Your task to perform on an android device: change timer sound Image 0: 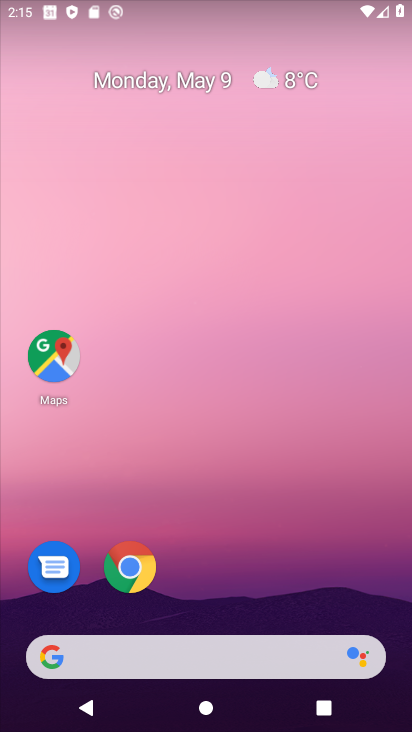
Step 0: drag from (315, 615) to (302, 179)
Your task to perform on an android device: change timer sound Image 1: 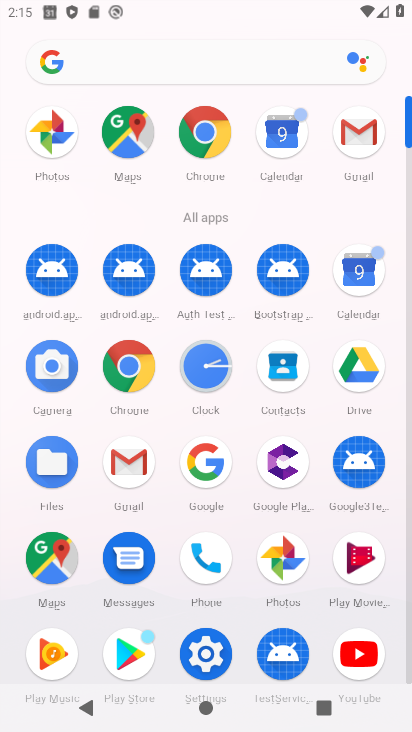
Step 1: click (201, 352)
Your task to perform on an android device: change timer sound Image 2: 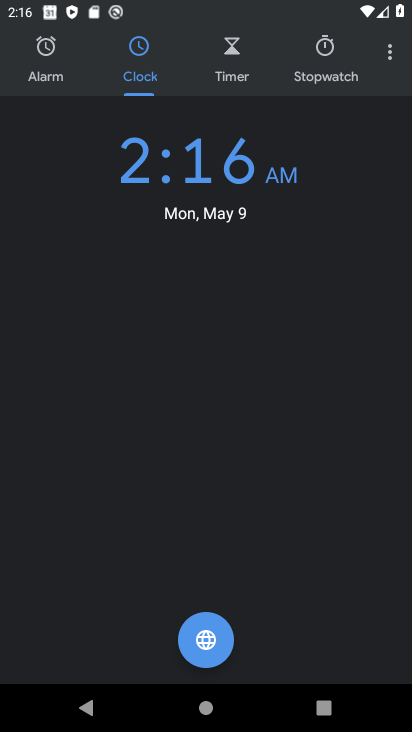
Step 2: click (377, 61)
Your task to perform on an android device: change timer sound Image 3: 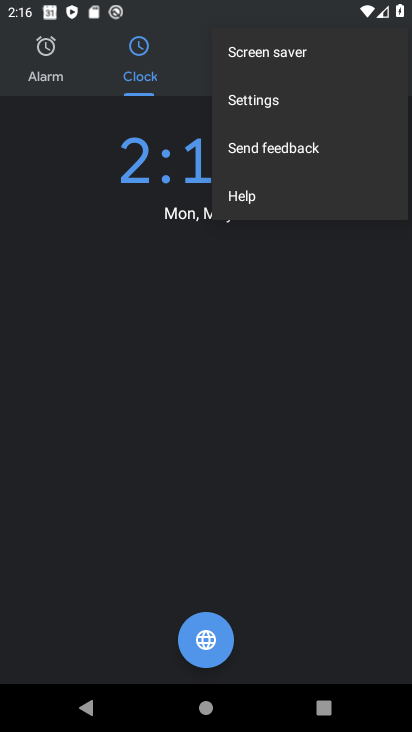
Step 3: click (301, 92)
Your task to perform on an android device: change timer sound Image 4: 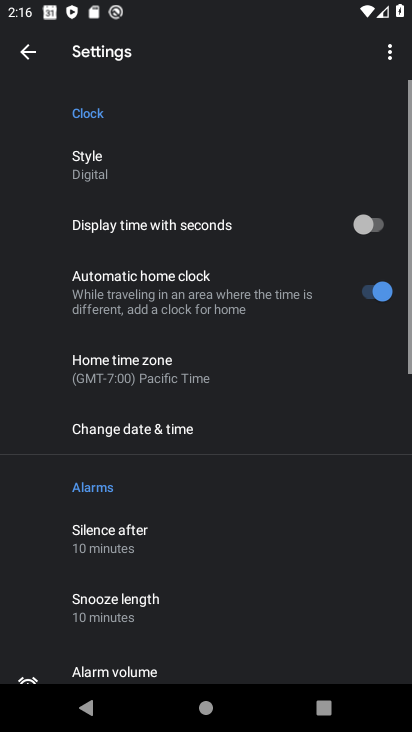
Step 4: drag from (209, 617) to (252, 105)
Your task to perform on an android device: change timer sound Image 5: 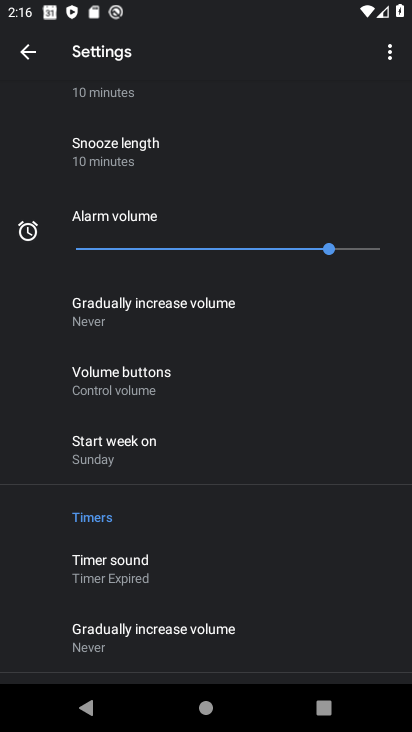
Step 5: click (174, 583)
Your task to perform on an android device: change timer sound Image 6: 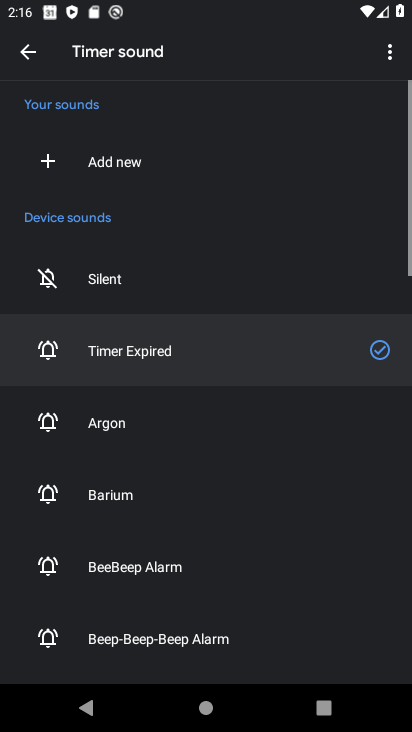
Step 6: drag from (135, 592) to (170, 198)
Your task to perform on an android device: change timer sound Image 7: 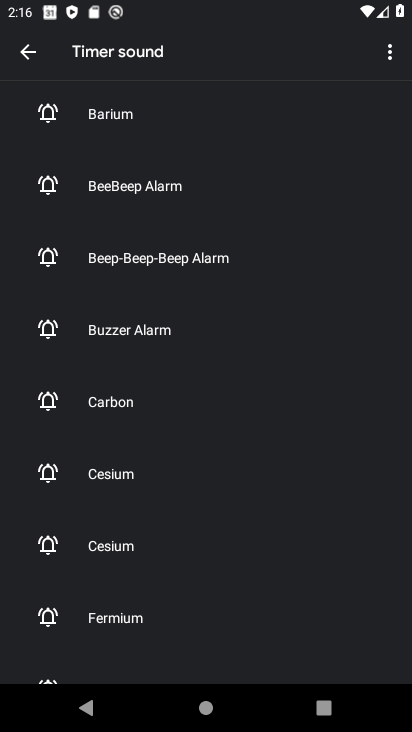
Step 7: click (113, 540)
Your task to perform on an android device: change timer sound Image 8: 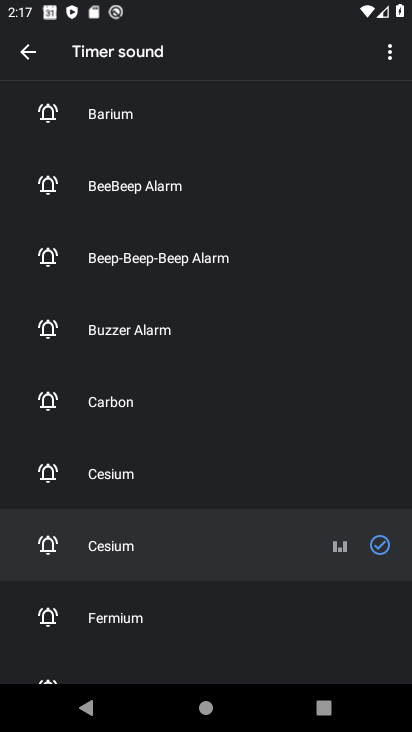
Step 8: task complete